Your task to perform on an android device: remove spam from my inbox in the gmail app Image 0: 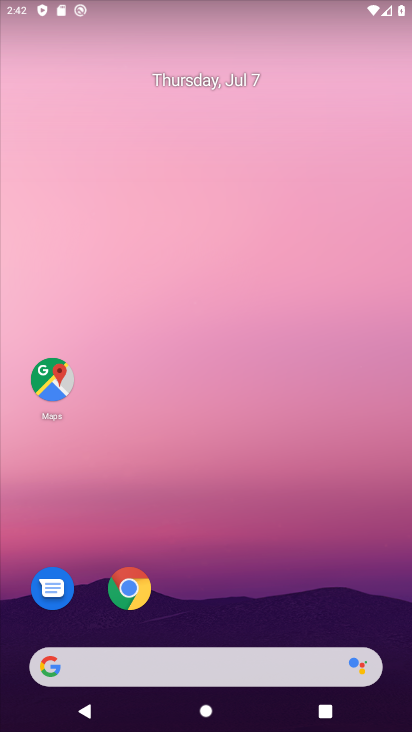
Step 0: drag from (197, 653) to (224, 34)
Your task to perform on an android device: remove spam from my inbox in the gmail app Image 1: 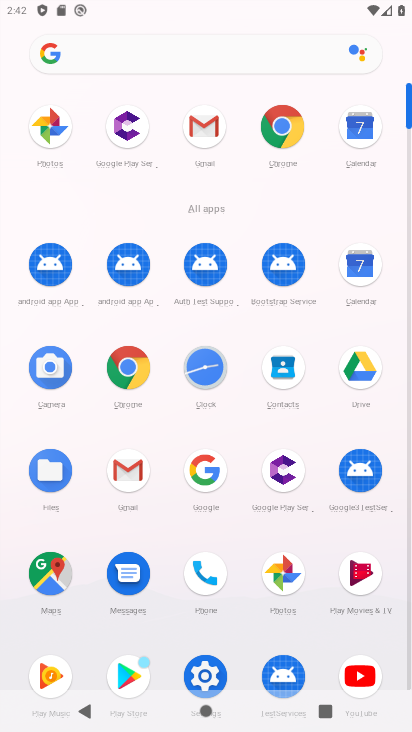
Step 1: click (195, 131)
Your task to perform on an android device: remove spam from my inbox in the gmail app Image 2: 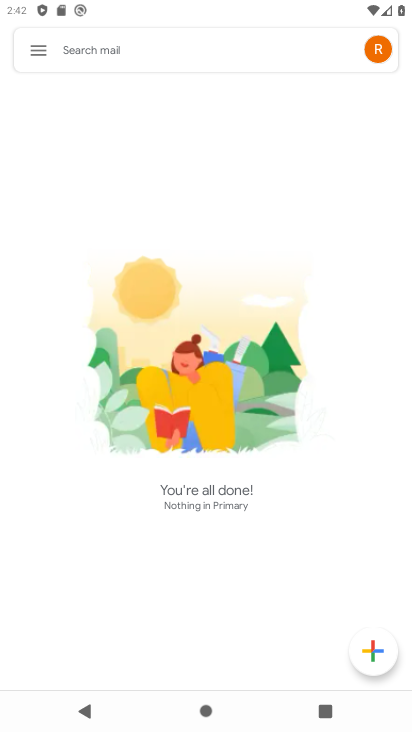
Step 2: click (35, 55)
Your task to perform on an android device: remove spam from my inbox in the gmail app Image 3: 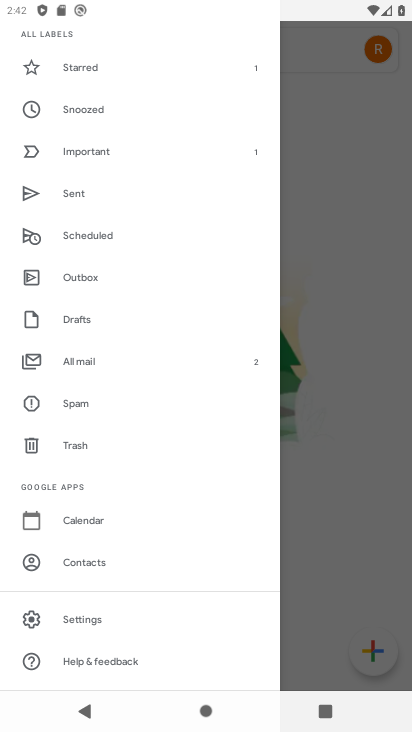
Step 3: click (70, 404)
Your task to perform on an android device: remove spam from my inbox in the gmail app Image 4: 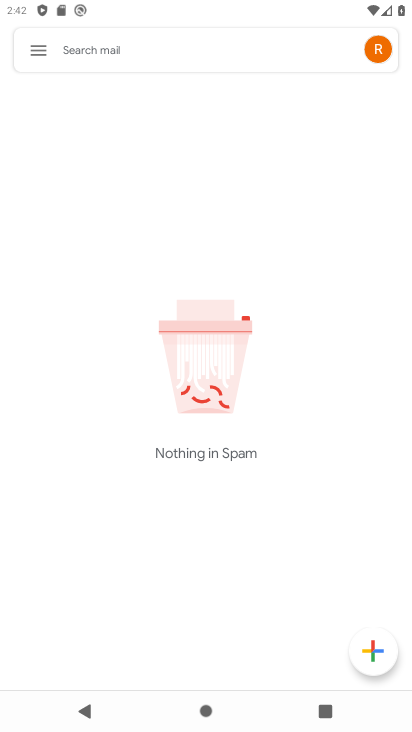
Step 4: task complete